Your task to perform on an android device: Play the last video I watched on Youtube Image 0: 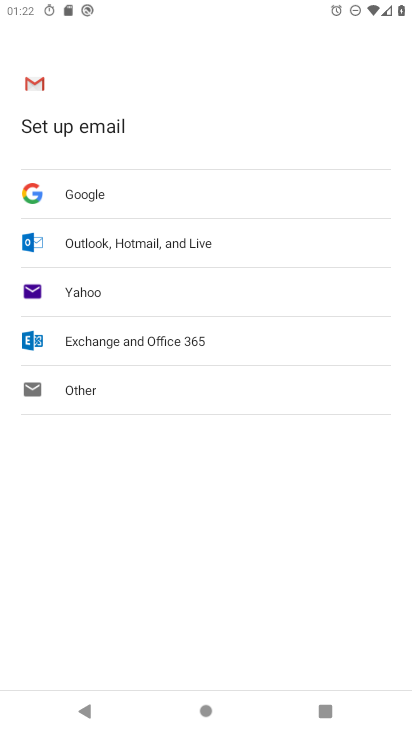
Step 0: press home button
Your task to perform on an android device: Play the last video I watched on Youtube Image 1: 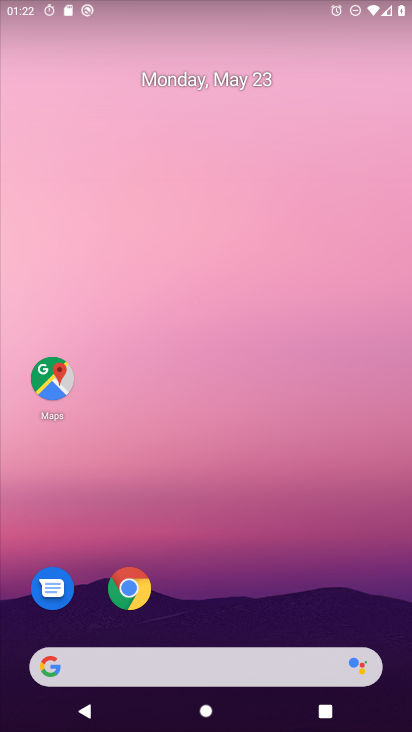
Step 1: drag from (268, 589) to (314, 105)
Your task to perform on an android device: Play the last video I watched on Youtube Image 2: 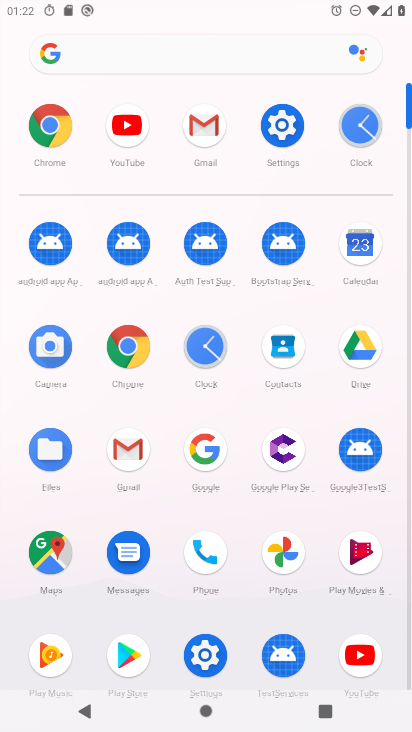
Step 2: click (361, 648)
Your task to perform on an android device: Play the last video I watched on Youtube Image 3: 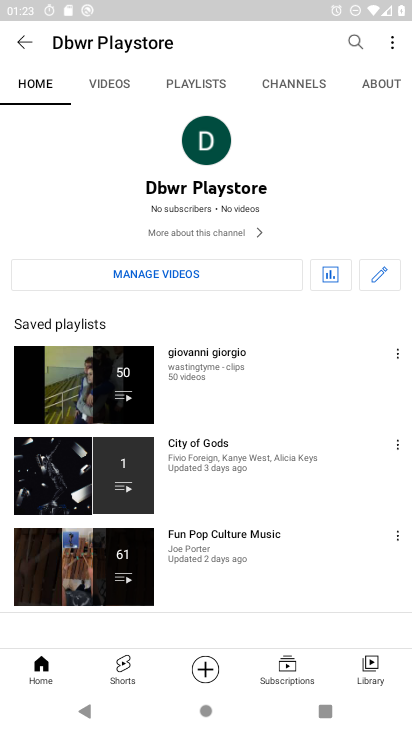
Step 3: click (361, 681)
Your task to perform on an android device: Play the last video I watched on Youtube Image 4: 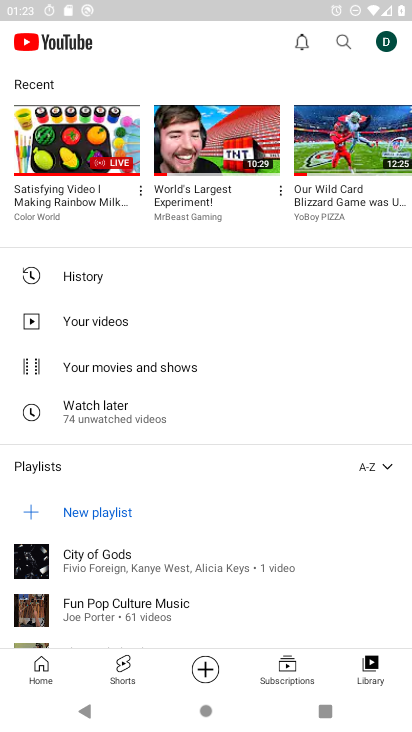
Step 4: click (85, 160)
Your task to perform on an android device: Play the last video I watched on Youtube Image 5: 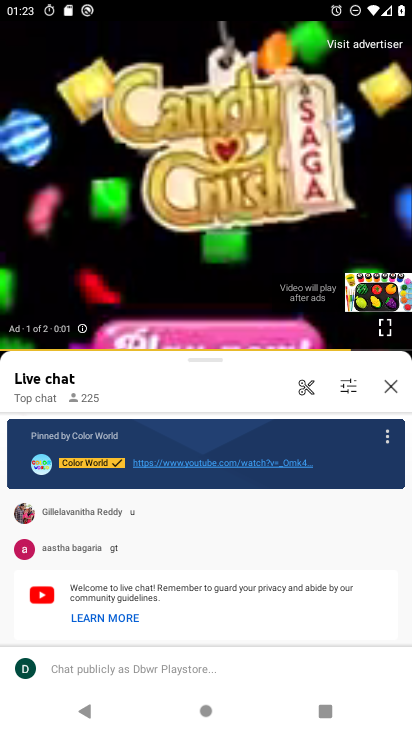
Step 5: click (395, 382)
Your task to perform on an android device: Play the last video I watched on Youtube Image 6: 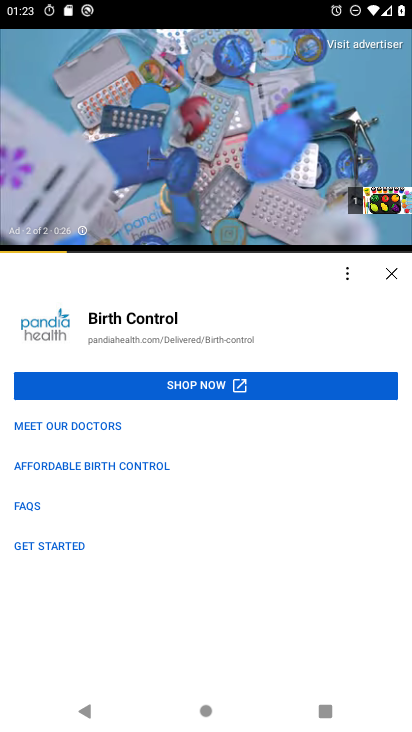
Step 6: click (386, 266)
Your task to perform on an android device: Play the last video I watched on Youtube Image 7: 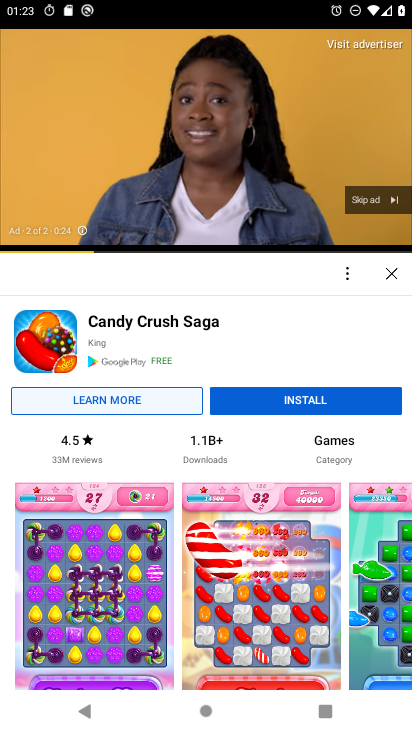
Step 7: click (368, 198)
Your task to perform on an android device: Play the last video I watched on Youtube Image 8: 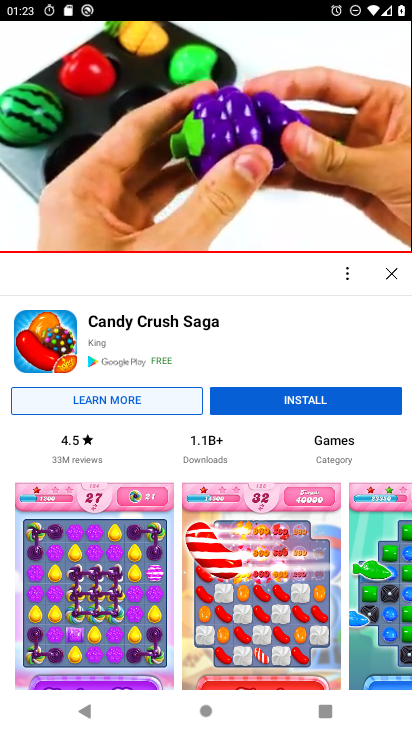
Step 8: click (392, 270)
Your task to perform on an android device: Play the last video I watched on Youtube Image 9: 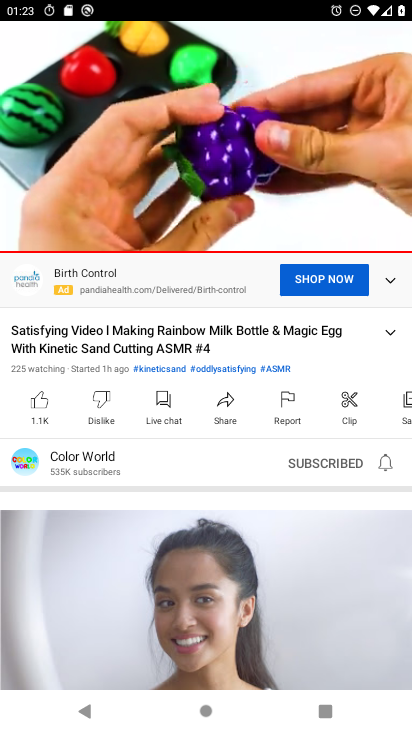
Step 9: click (280, 177)
Your task to perform on an android device: Play the last video I watched on Youtube Image 10: 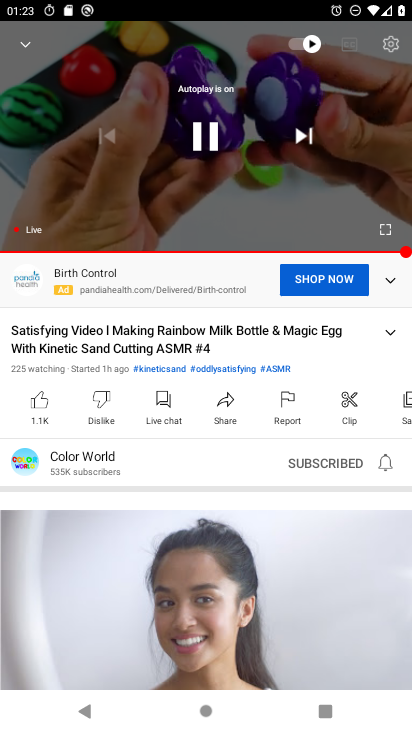
Step 10: click (210, 134)
Your task to perform on an android device: Play the last video I watched on Youtube Image 11: 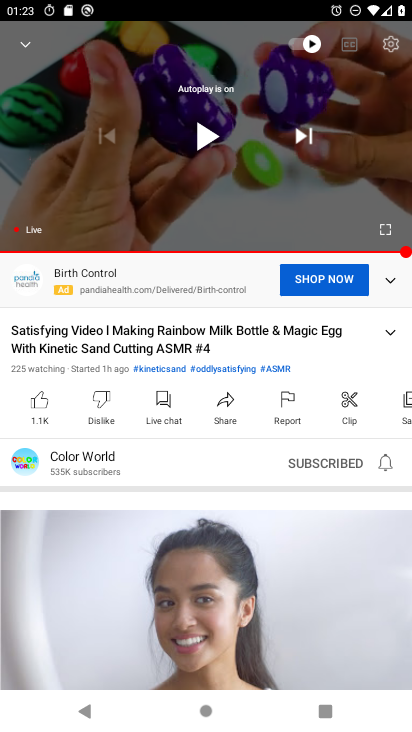
Step 11: task complete